Your task to perform on an android device: open device folders in google photos Image 0: 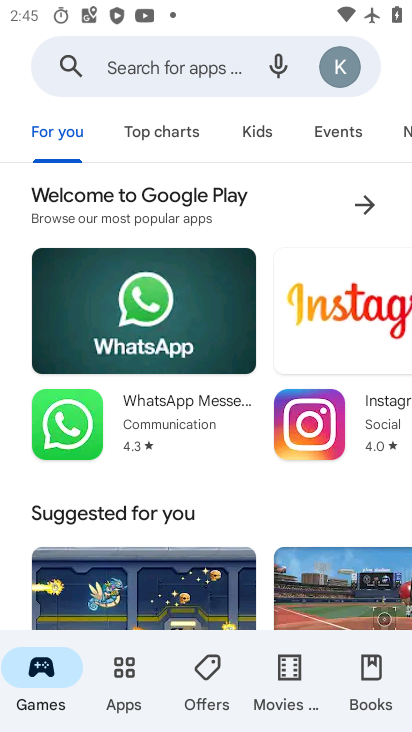
Step 0: press home button
Your task to perform on an android device: open device folders in google photos Image 1: 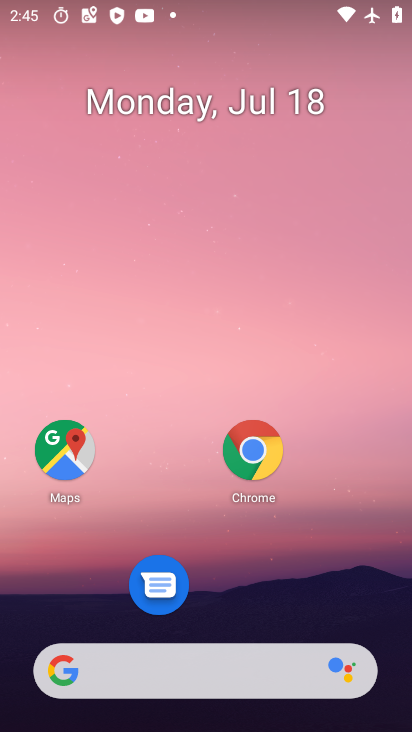
Step 1: drag from (184, 650) to (253, 138)
Your task to perform on an android device: open device folders in google photos Image 2: 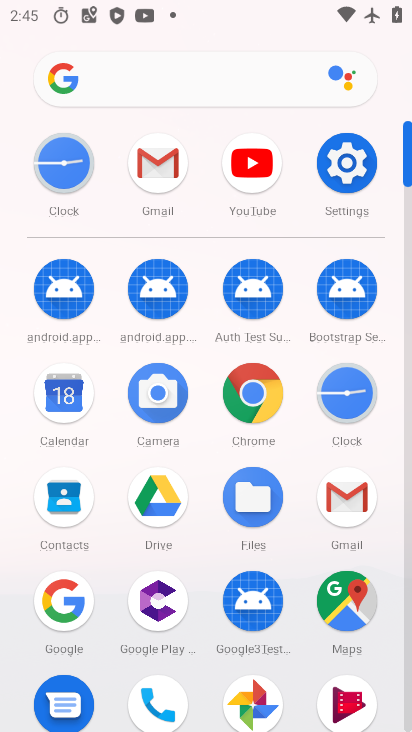
Step 2: click (249, 702)
Your task to perform on an android device: open device folders in google photos Image 3: 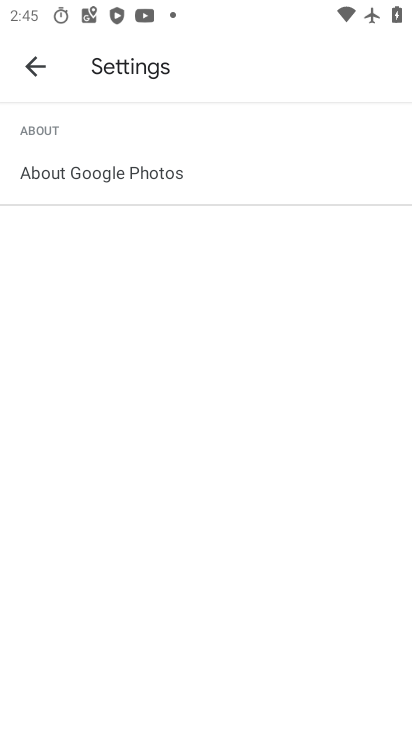
Step 3: click (33, 63)
Your task to perform on an android device: open device folders in google photos Image 4: 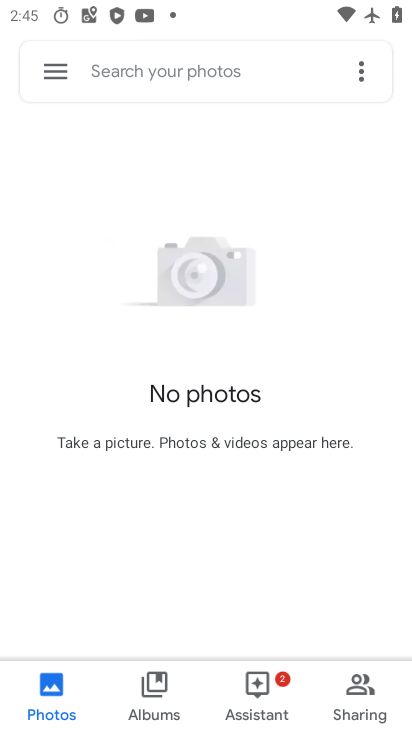
Step 4: click (55, 72)
Your task to perform on an android device: open device folders in google photos Image 5: 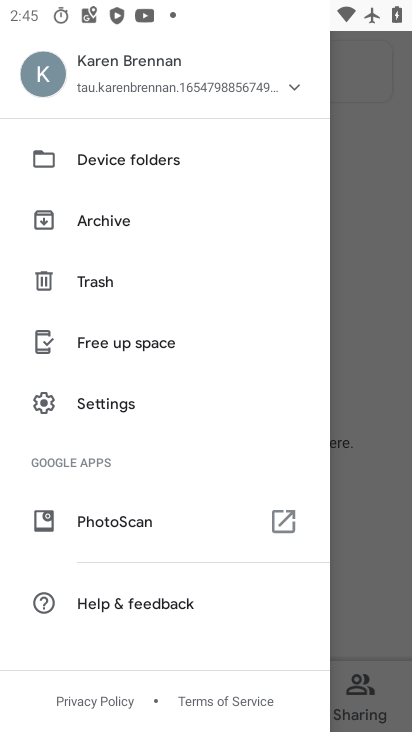
Step 5: click (99, 158)
Your task to perform on an android device: open device folders in google photos Image 6: 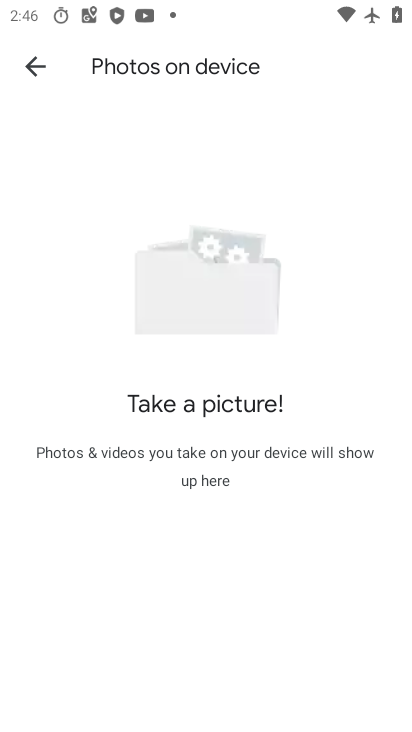
Step 6: task complete